Your task to perform on an android device: clear history in the chrome app Image 0: 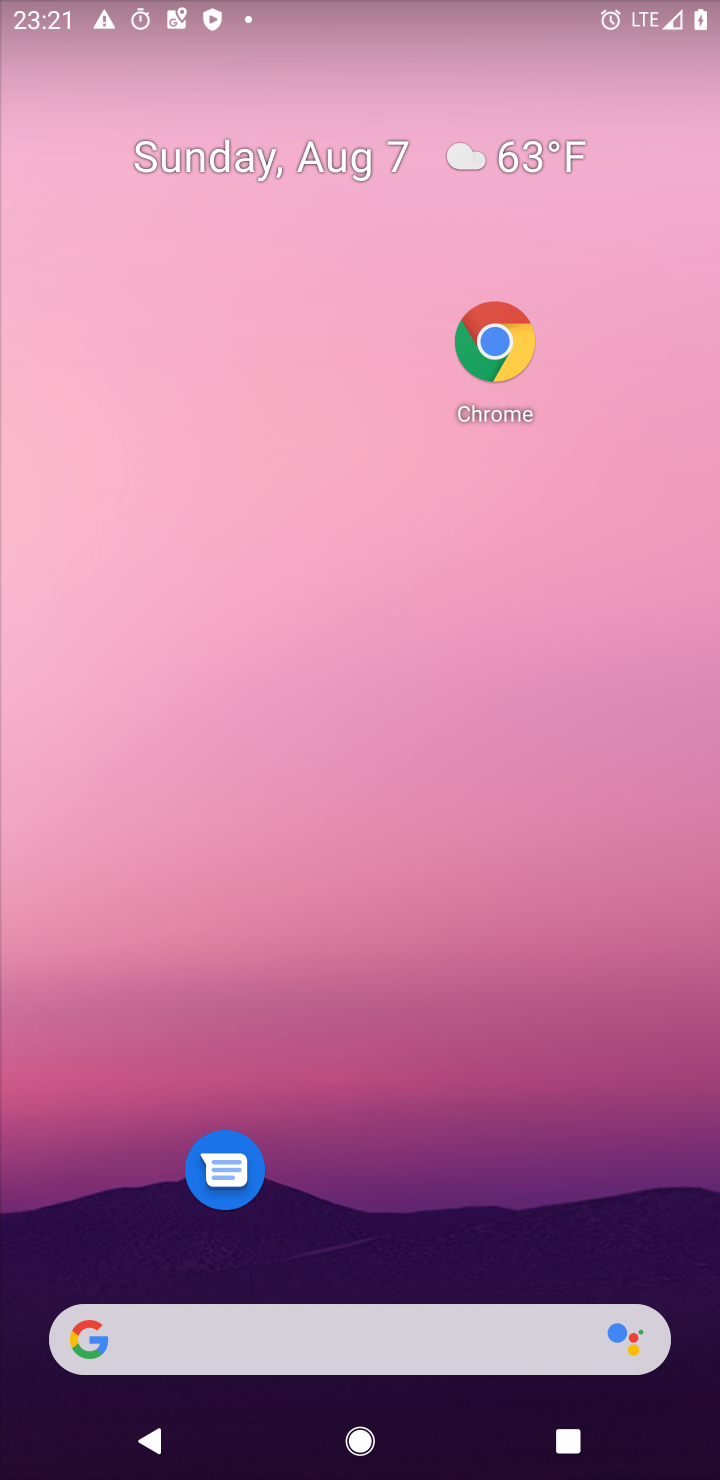
Step 0: drag from (413, 1324) to (400, 30)
Your task to perform on an android device: clear history in the chrome app Image 1: 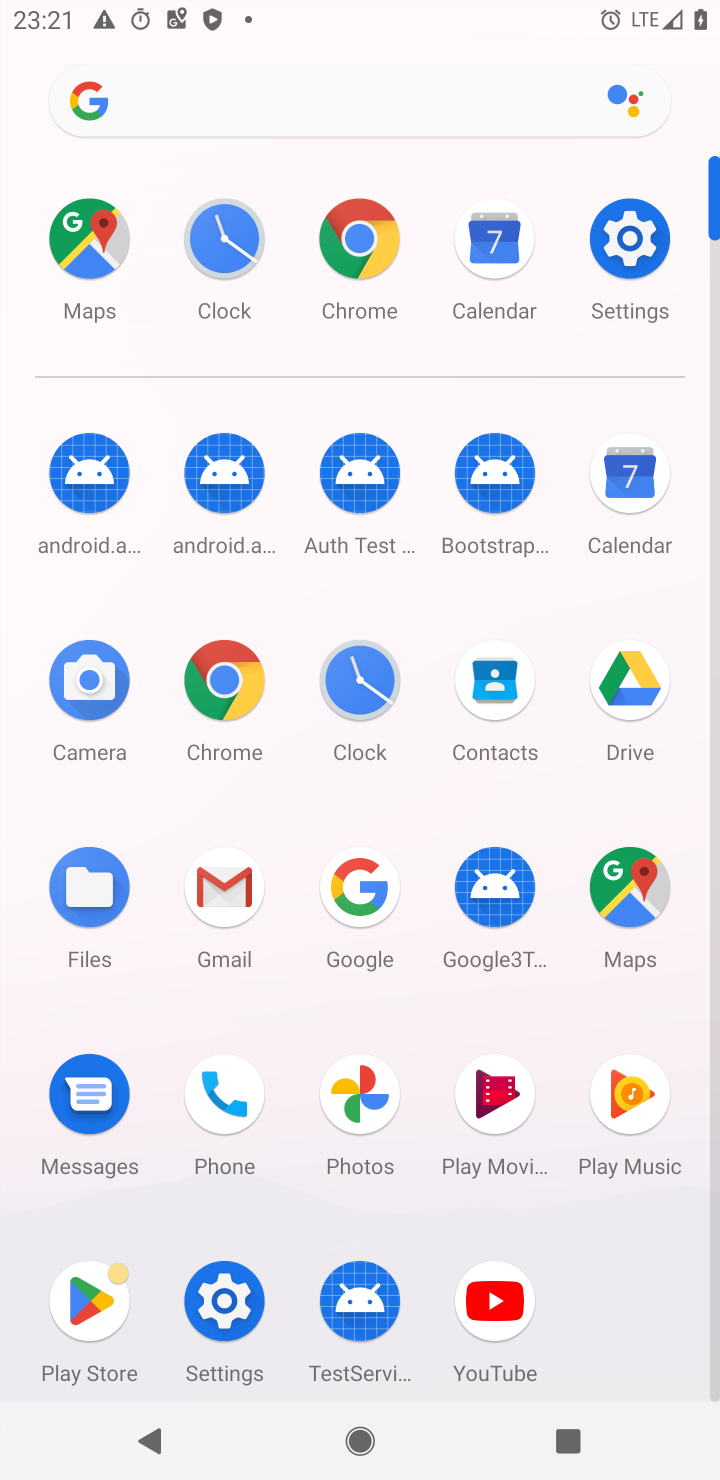
Step 1: click (240, 667)
Your task to perform on an android device: clear history in the chrome app Image 2: 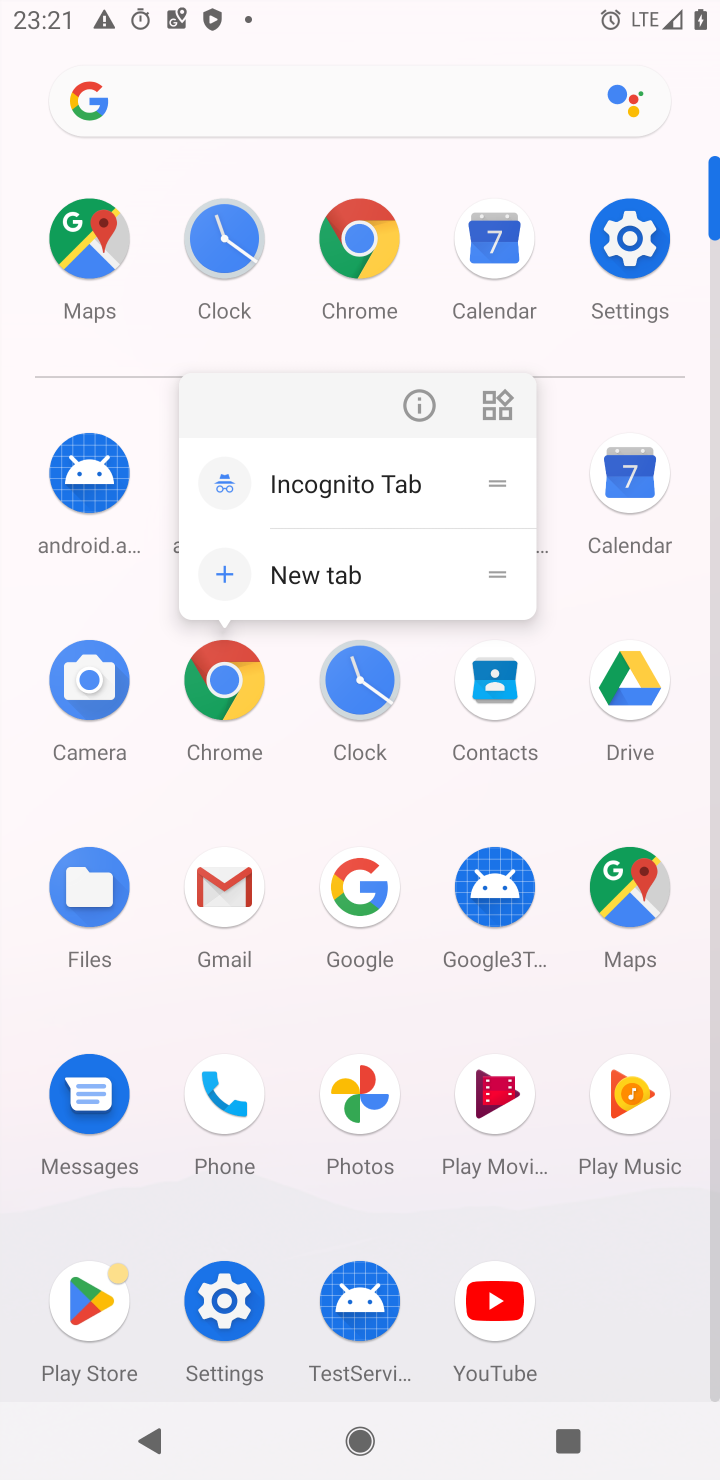
Step 2: click (240, 667)
Your task to perform on an android device: clear history in the chrome app Image 3: 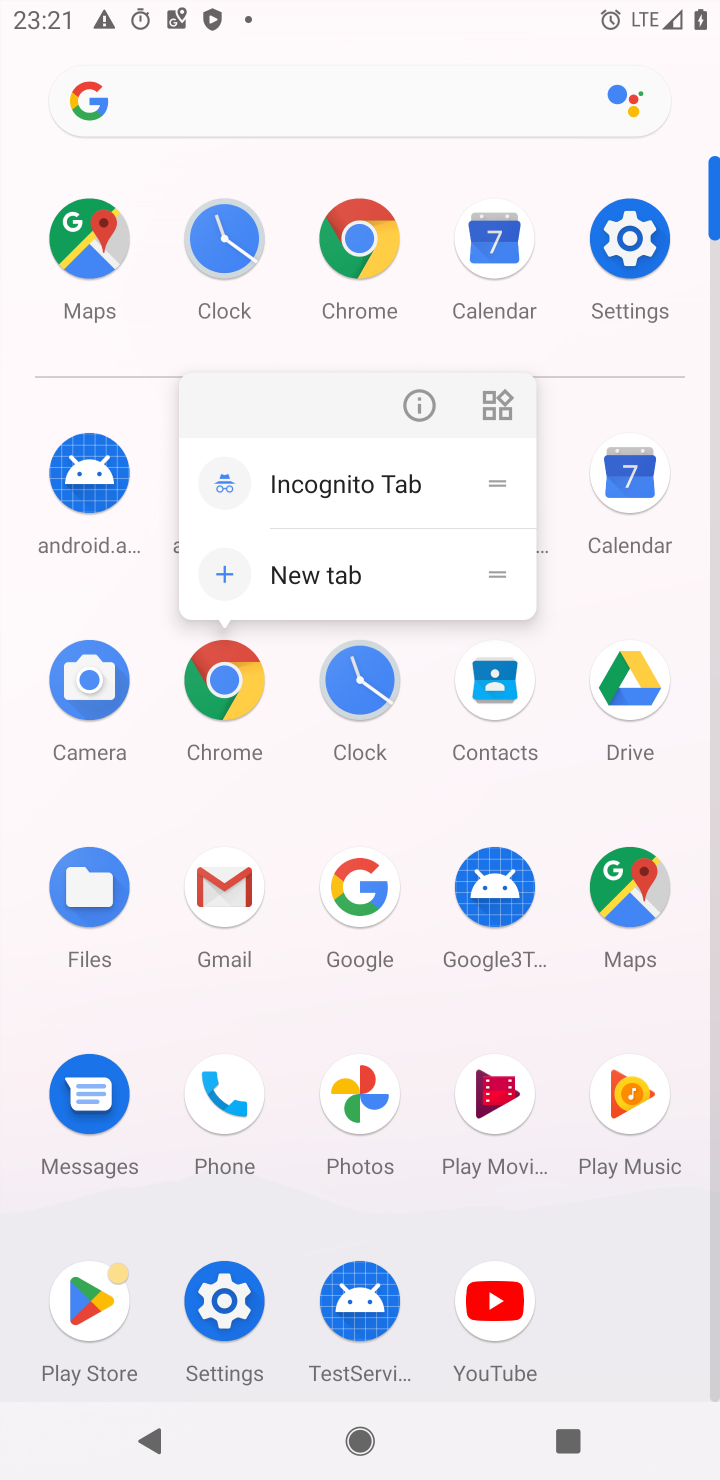
Step 3: click (240, 667)
Your task to perform on an android device: clear history in the chrome app Image 4: 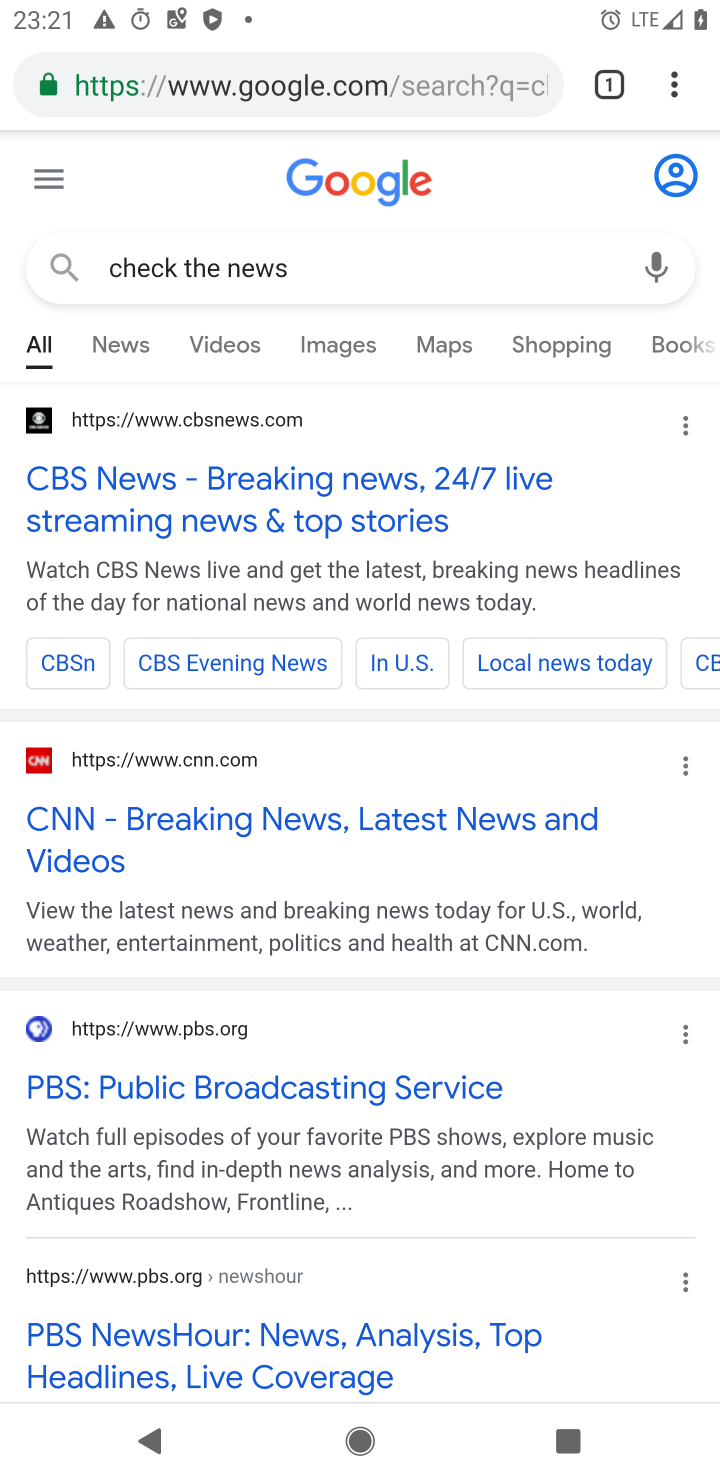
Step 4: click (669, 79)
Your task to perform on an android device: clear history in the chrome app Image 5: 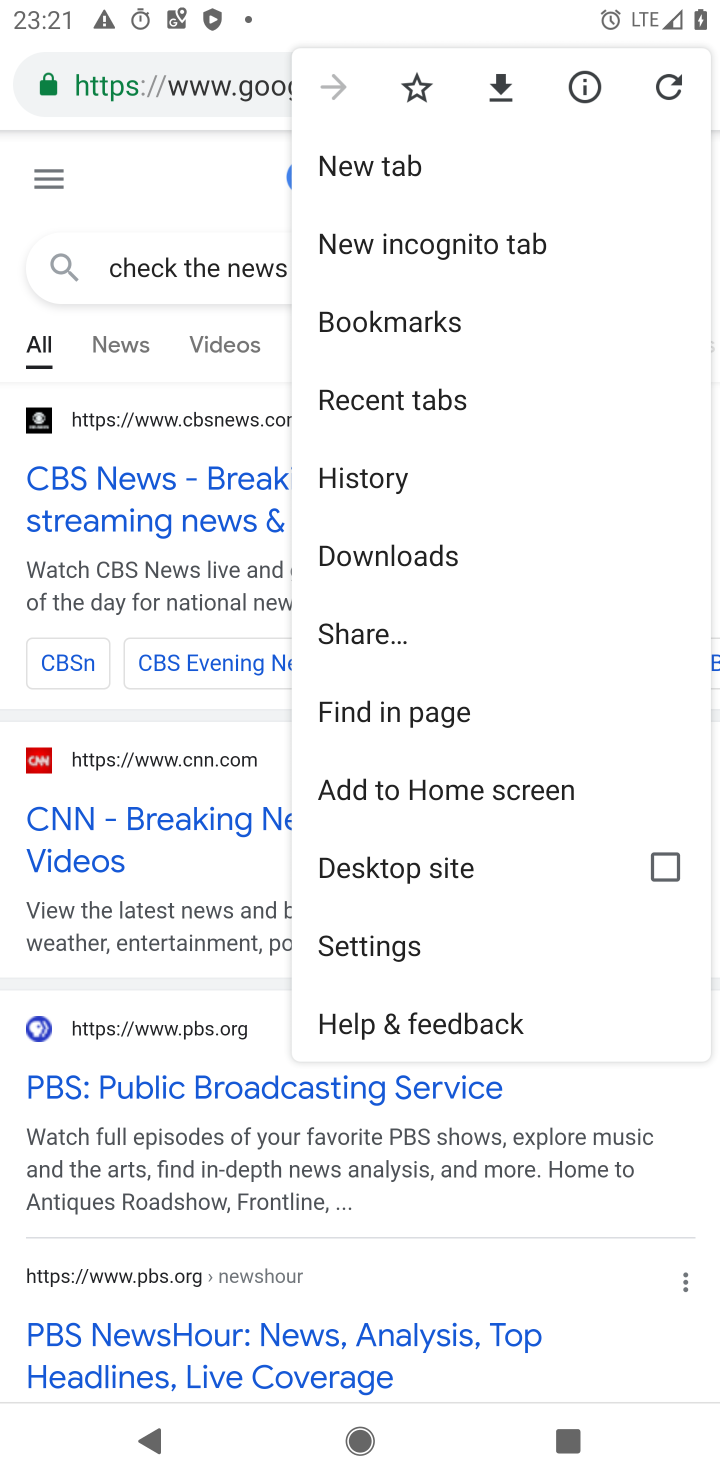
Step 5: click (392, 476)
Your task to perform on an android device: clear history in the chrome app Image 6: 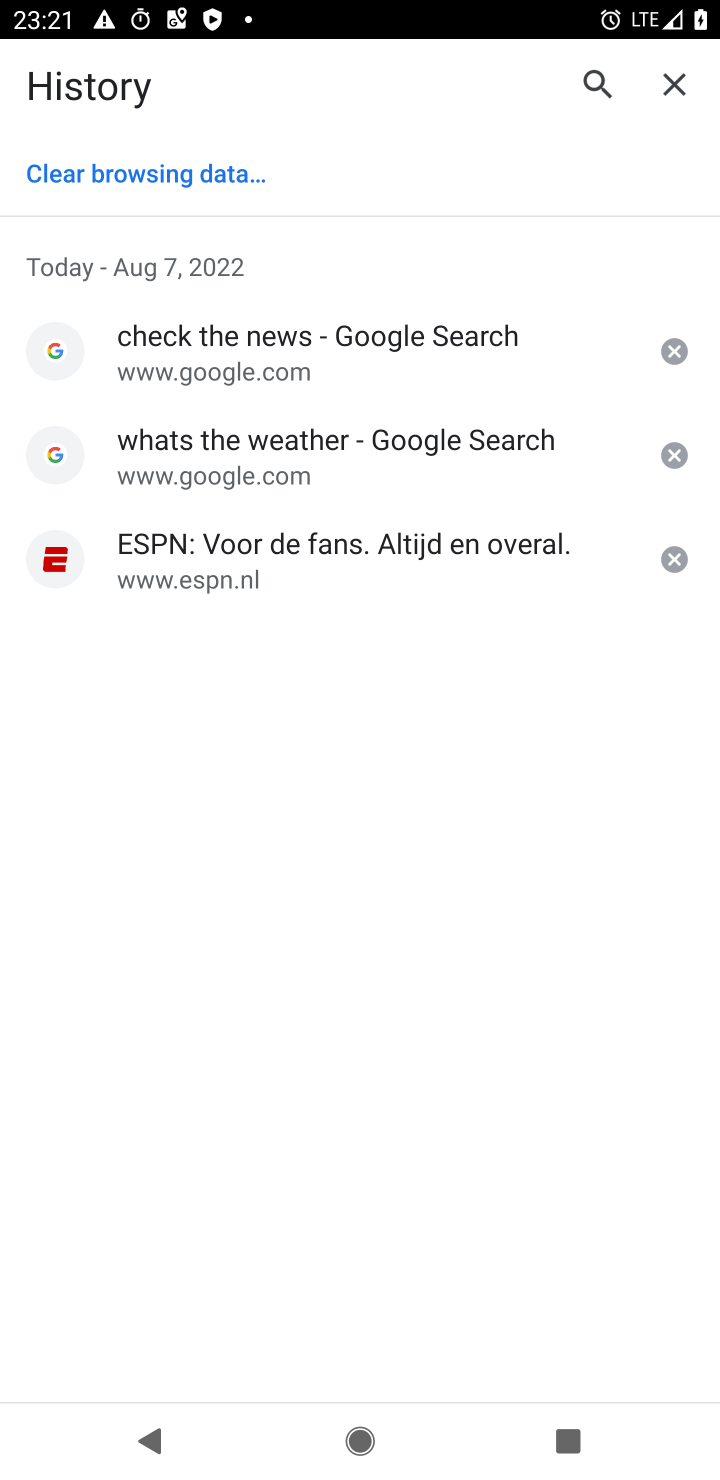
Step 6: click (183, 164)
Your task to perform on an android device: clear history in the chrome app Image 7: 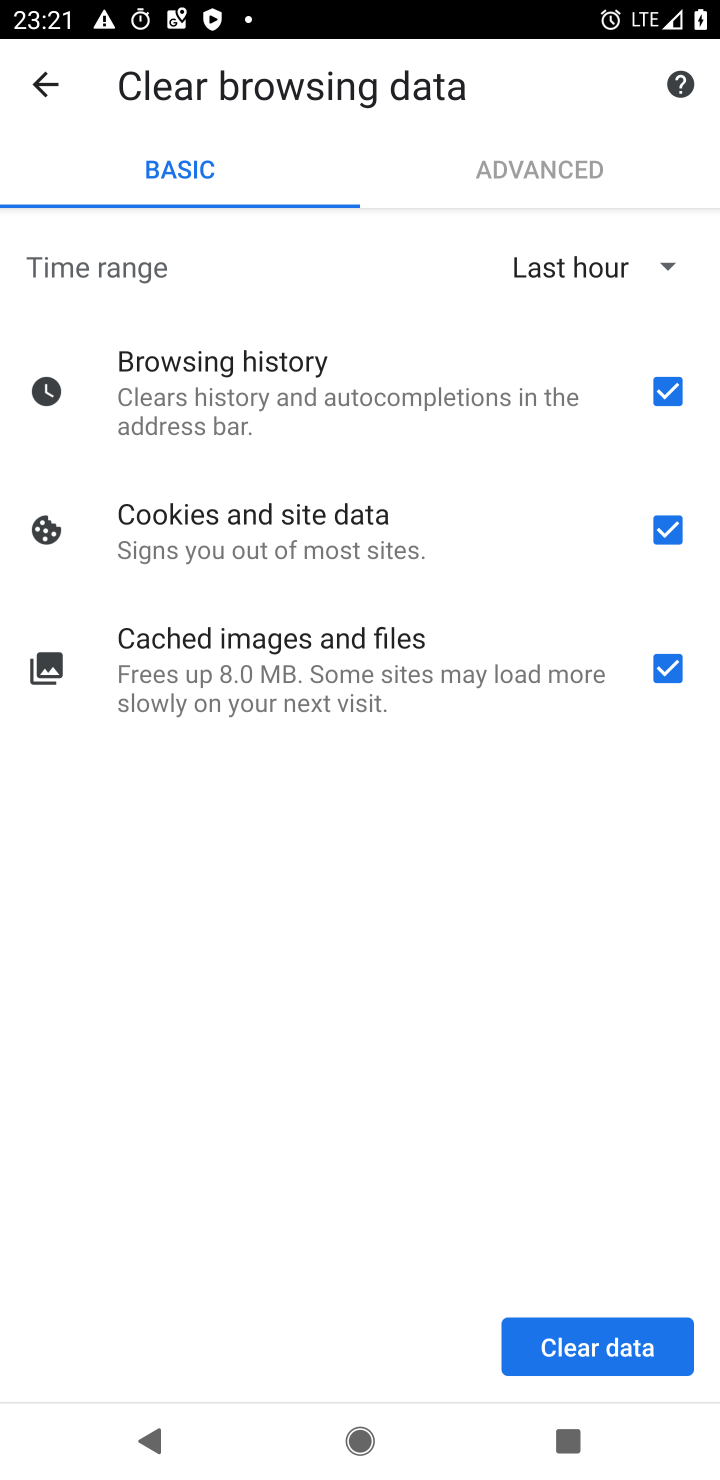
Step 7: click (589, 1311)
Your task to perform on an android device: clear history in the chrome app Image 8: 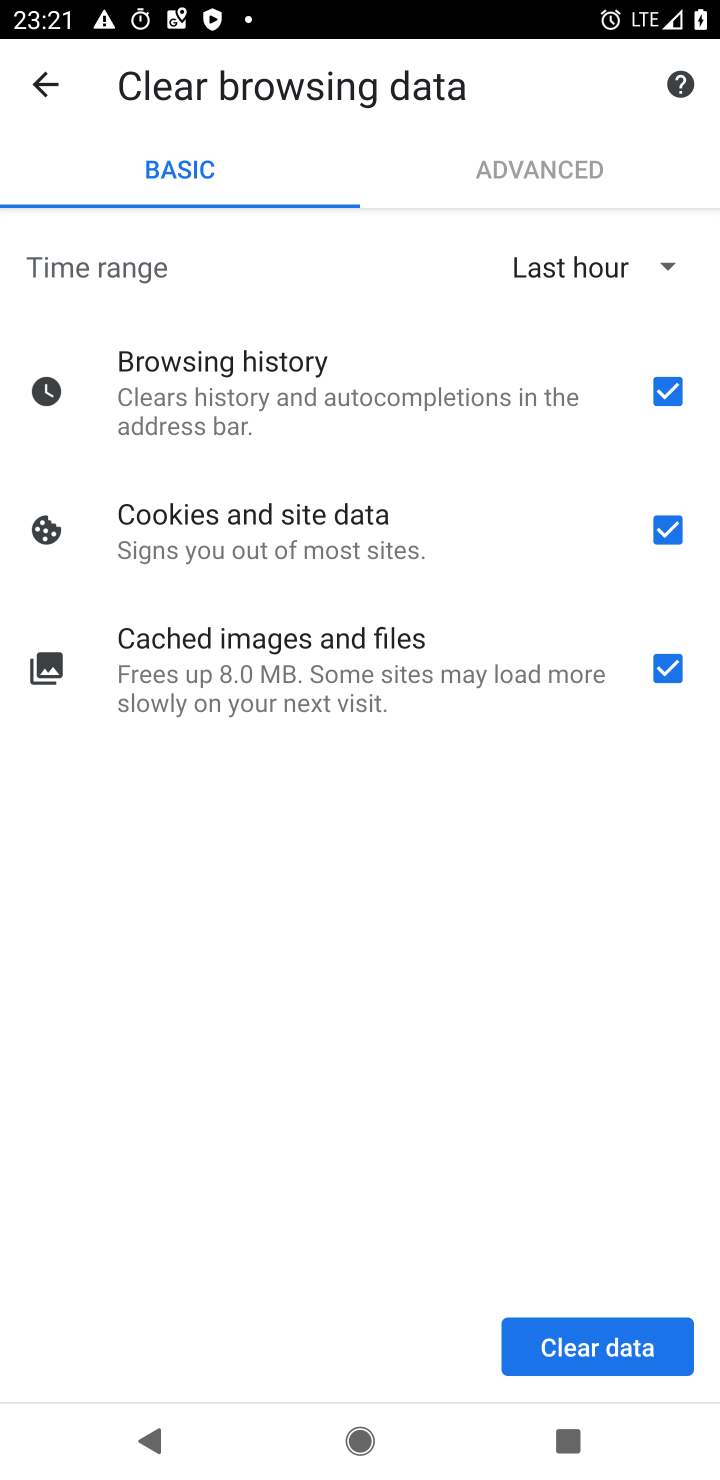
Step 8: click (618, 1353)
Your task to perform on an android device: clear history in the chrome app Image 9: 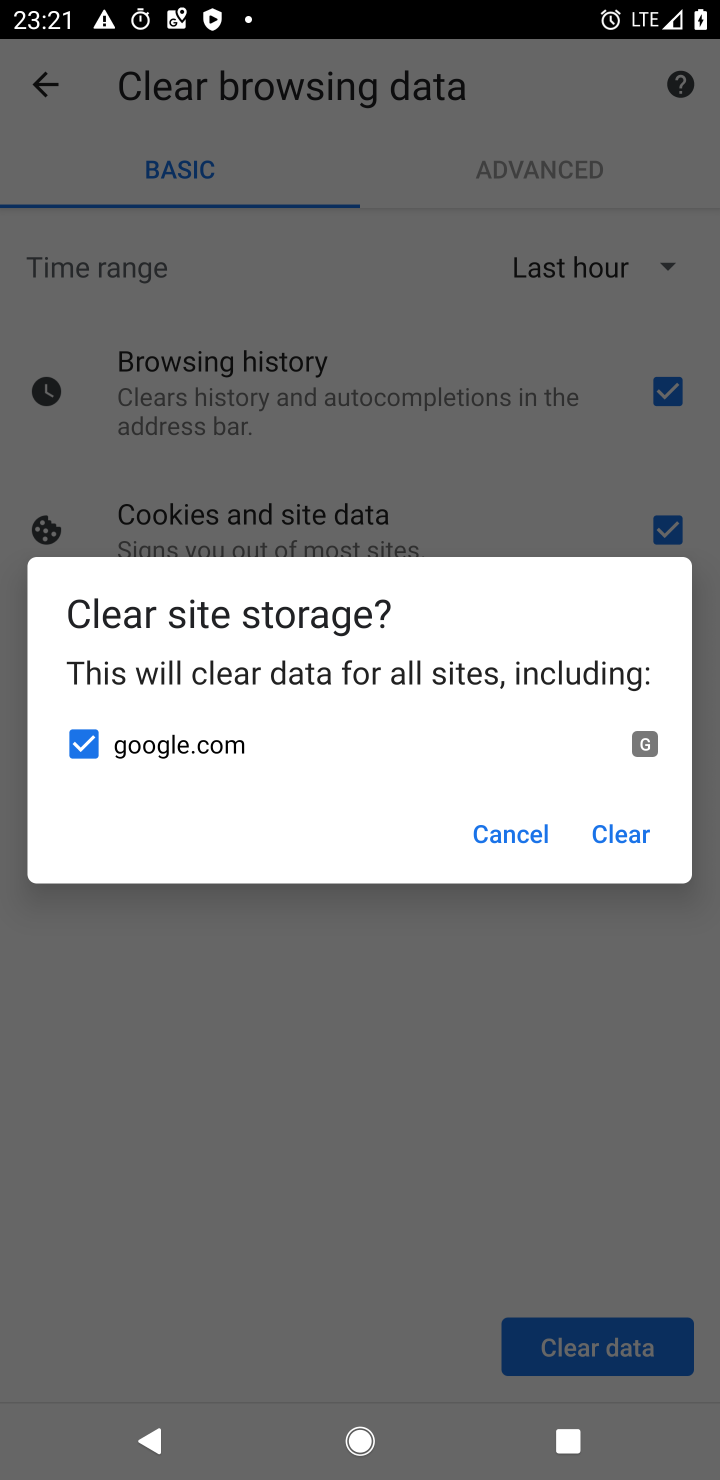
Step 9: click (615, 842)
Your task to perform on an android device: clear history in the chrome app Image 10: 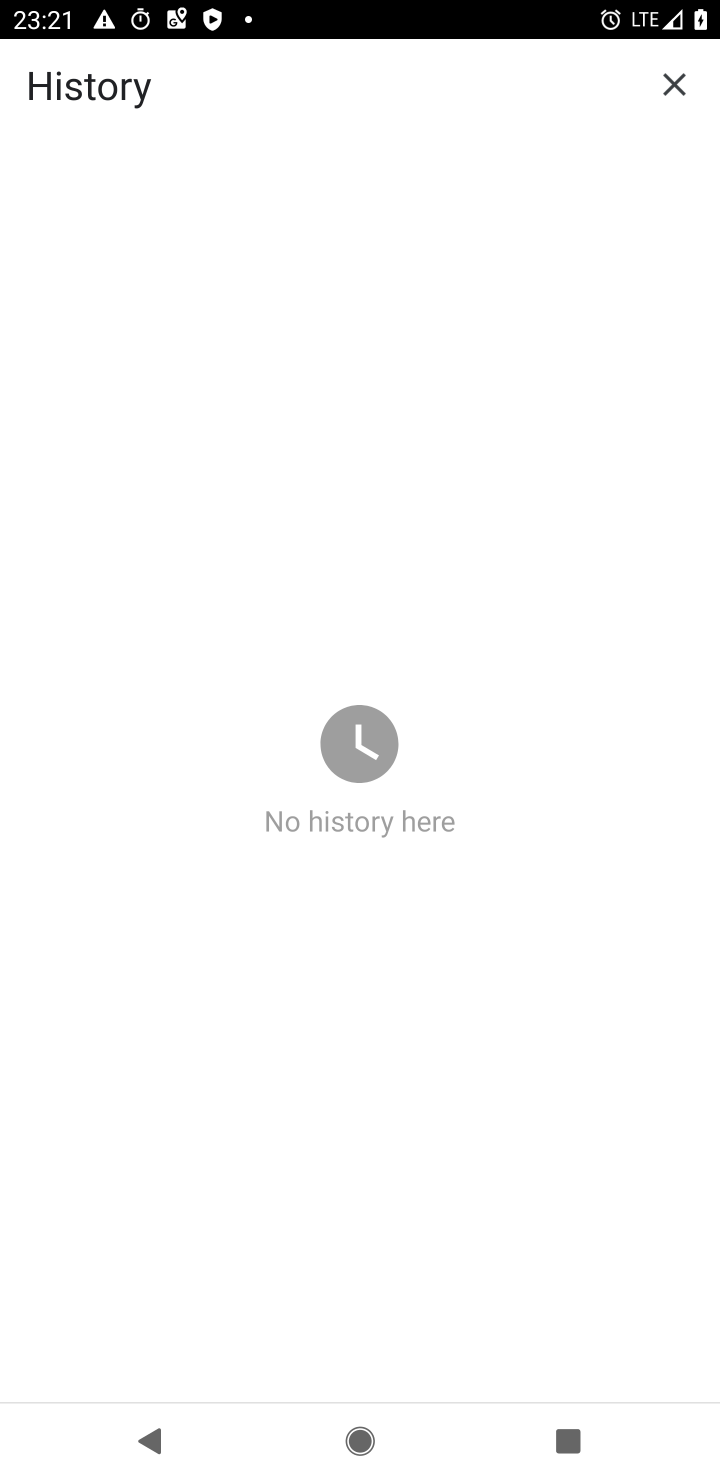
Step 10: task complete